Your task to perform on an android device: What's on my calendar today? Image 0: 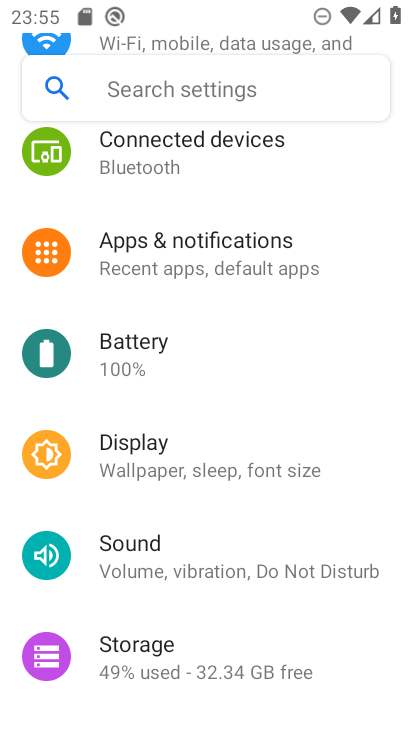
Step 0: press home button
Your task to perform on an android device: What's on my calendar today? Image 1: 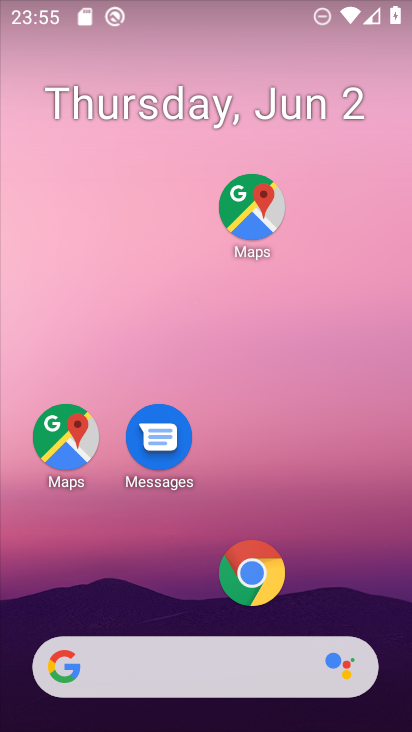
Step 1: drag from (322, 47) to (32, 0)
Your task to perform on an android device: What's on my calendar today? Image 2: 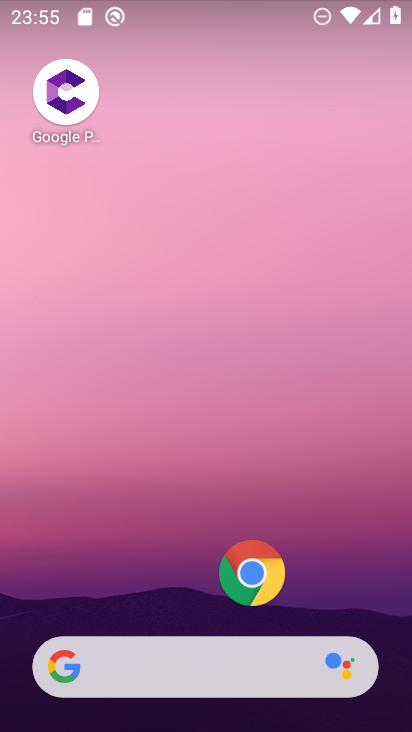
Step 2: drag from (359, 608) to (401, 128)
Your task to perform on an android device: What's on my calendar today? Image 3: 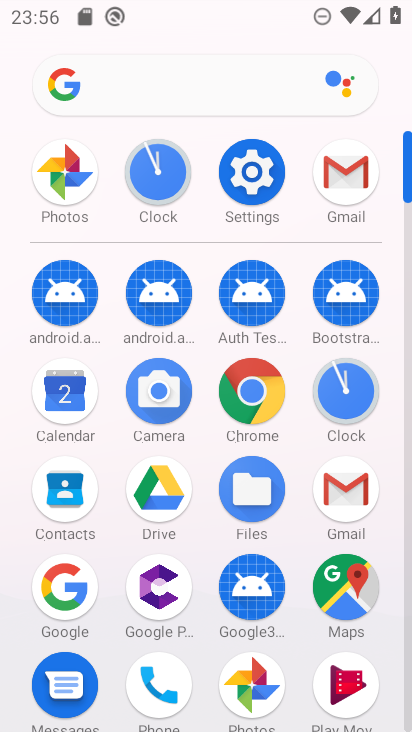
Step 3: click (70, 384)
Your task to perform on an android device: What's on my calendar today? Image 4: 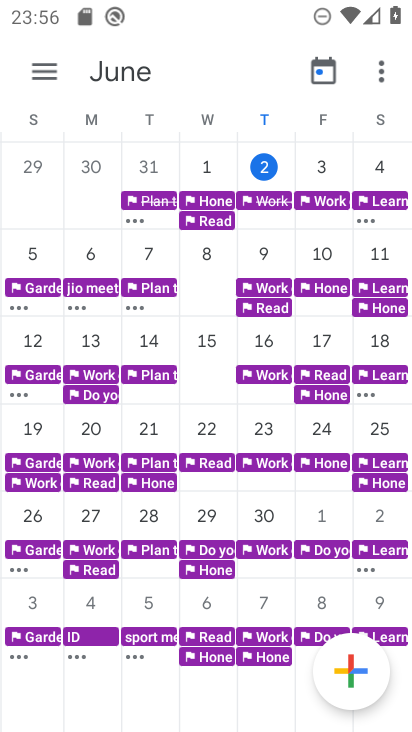
Step 4: click (31, 57)
Your task to perform on an android device: What's on my calendar today? Image 5: 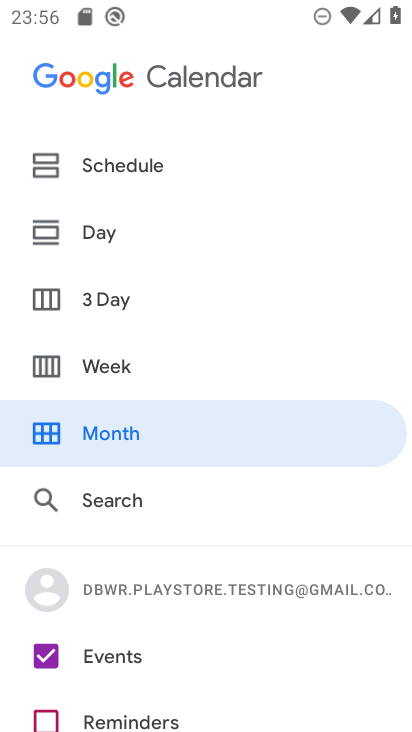
Step 5: click (138, 164)
Your task to perform on an android device: What's on my calendar today? Image 6: 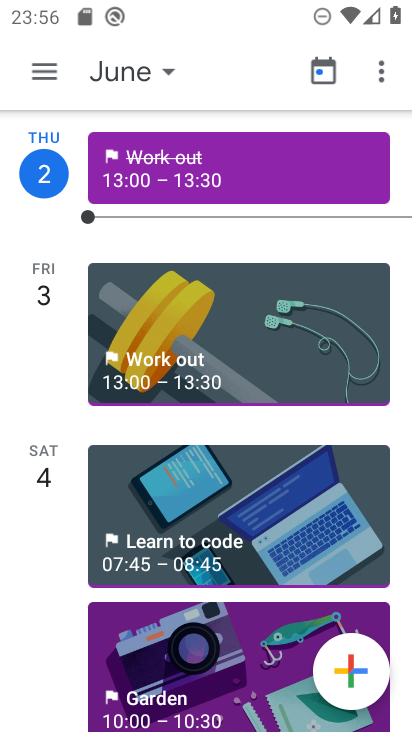
Step 6: task complete